Your task to perform on an android device: Go to wifi settings Image 0: 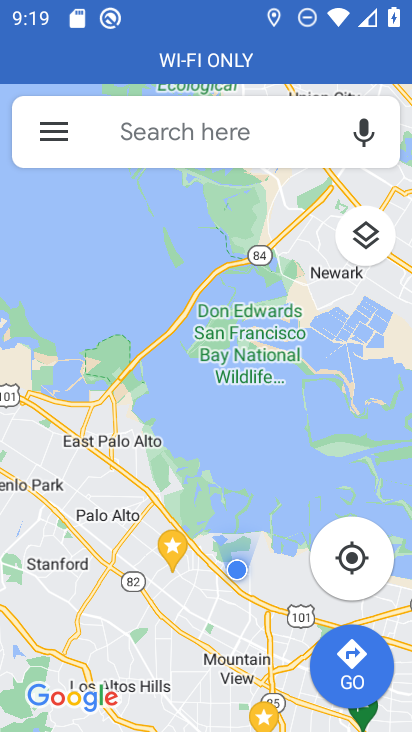
Step 0: press back button
Your task to perform on an android device: Go to wifi settings Image 1: 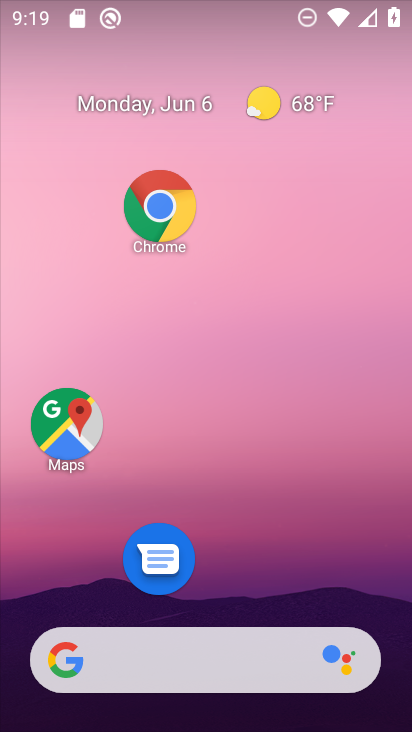
Step 1: drag from (246, 699) to (198, 297)
Your task to perform on an android device: Go to wifi settings Image 2: 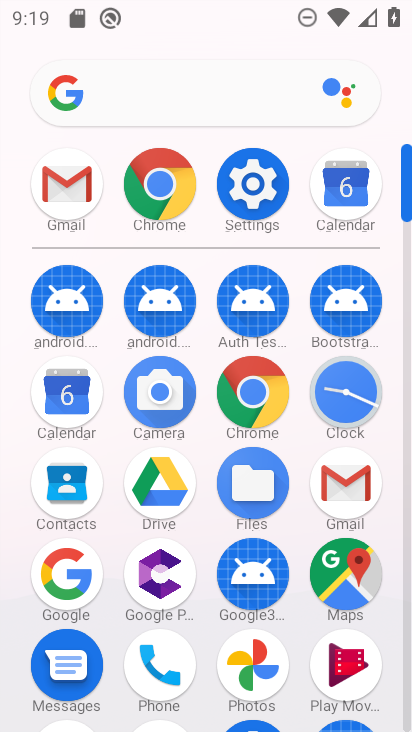
Step 2: click (254, 182)
Your task to perform on an android device: Go to wifi settings Image 3: 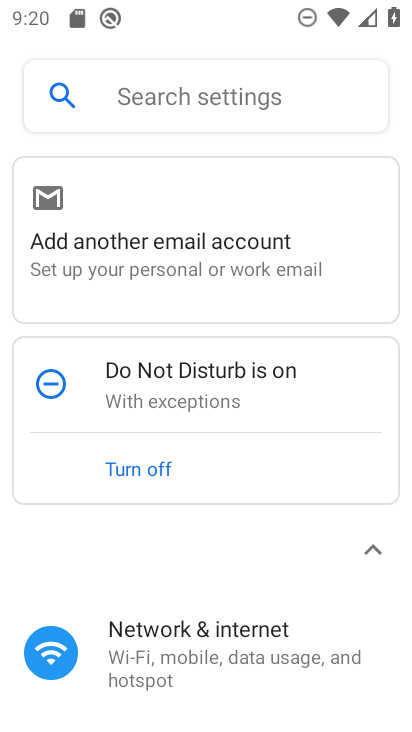
Step 3: click (205, 642)
Your task to perform on an android device: Go to wifi settings Image 4: 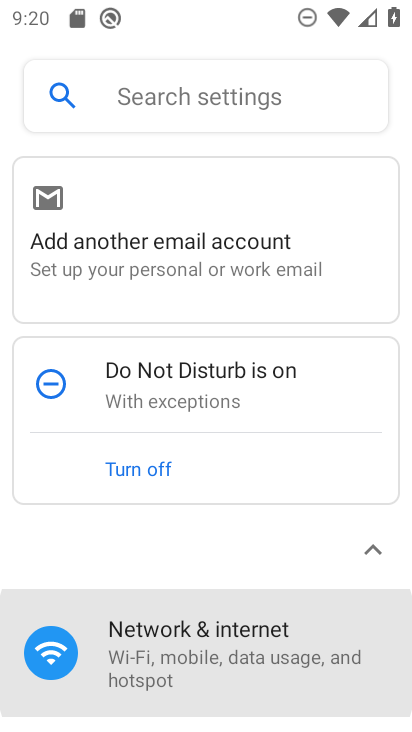
Step 4: click (205, 642)
Your task to perform on an android device: Go to wifi settings Image 5: 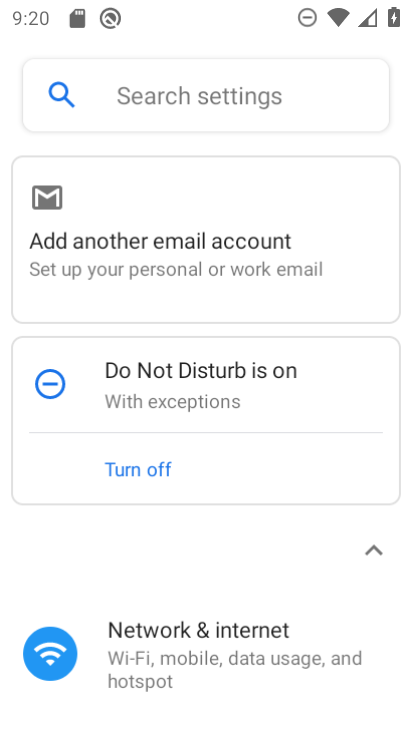
Step 5: click (205, 642)
Your task to perform on an android device: Go to wifi settings Image 6: 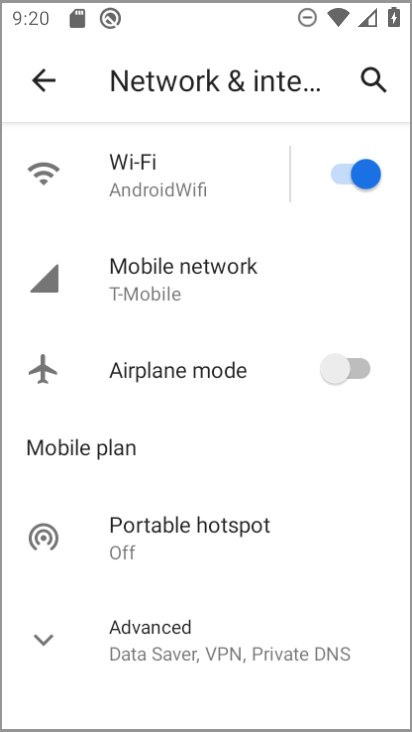
Step 6: click (205, 641)
Your task to perform on an android device: Go to wifi settings Image 7: 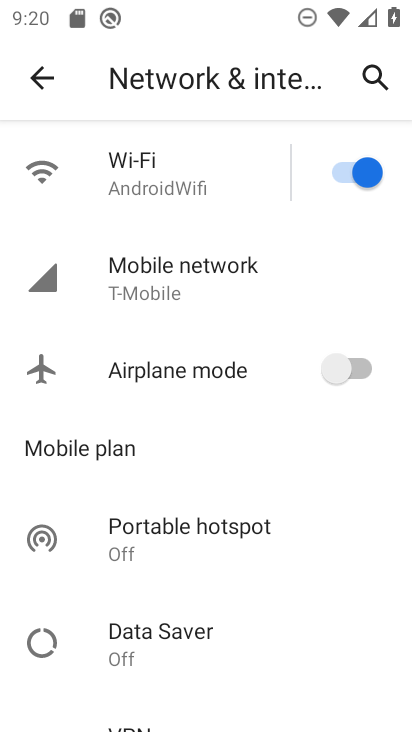
Step 7: task complete